Your task to perform on an android device: add a contact Image 0: 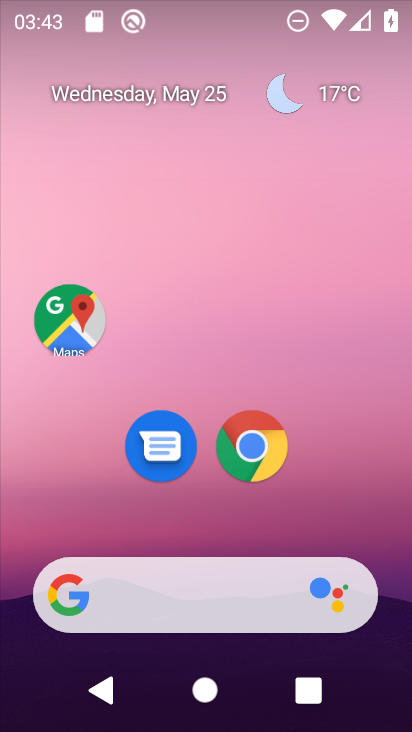
Step 0: drag from (219, 539) to (193, 139)
Your task to perform on an android device: add a contact Image 1: 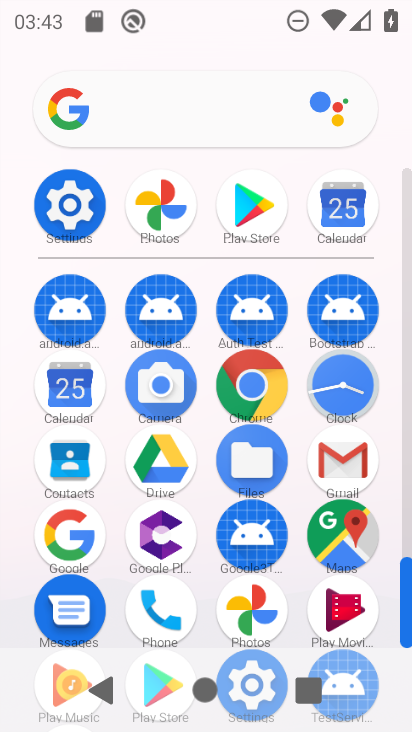
Step 1: click (75, 460)
Your task to perform on an android device: add a contact Image 2: 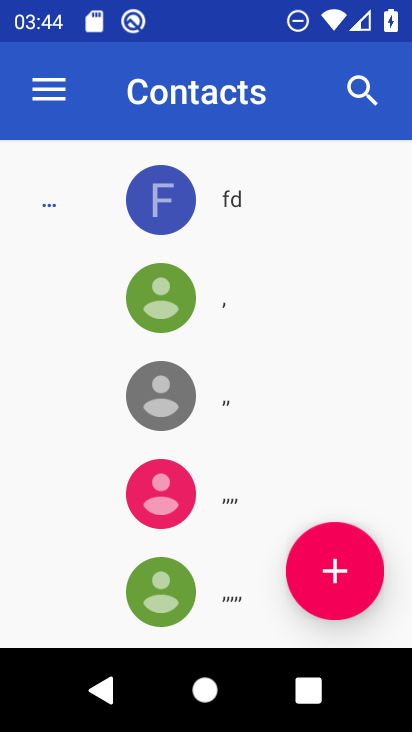
Step 2: click (342, 560)
Your task to perform on an android device: add a contact Image 3: 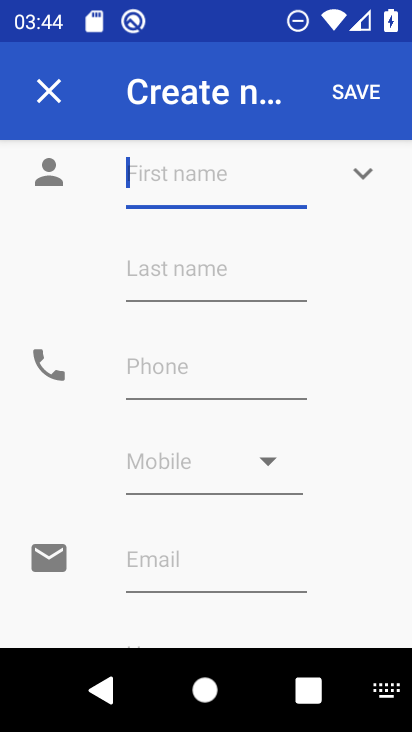
Step 3: type "saida"
Your task to perform on an android device: add a contact Image 4: 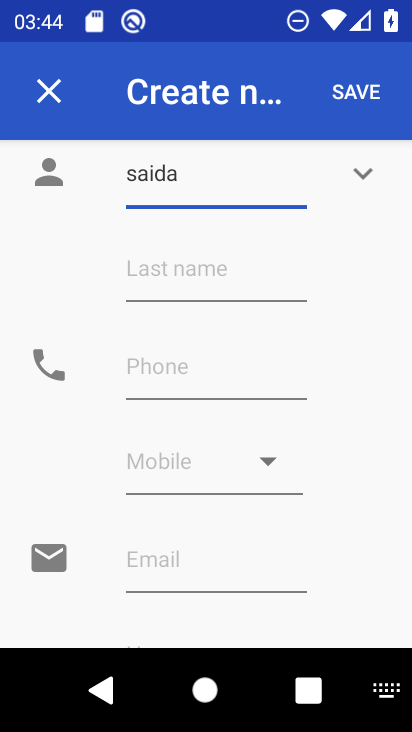
Step 4: click (197, 372)
Your task to perform on an android device: add a contact Image 5: 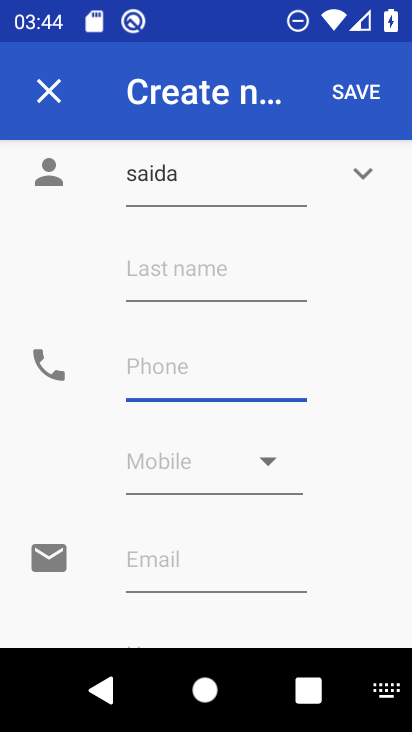
Step 5: type "9880980"
Your task to perform on an android device: add a contact Image 6: 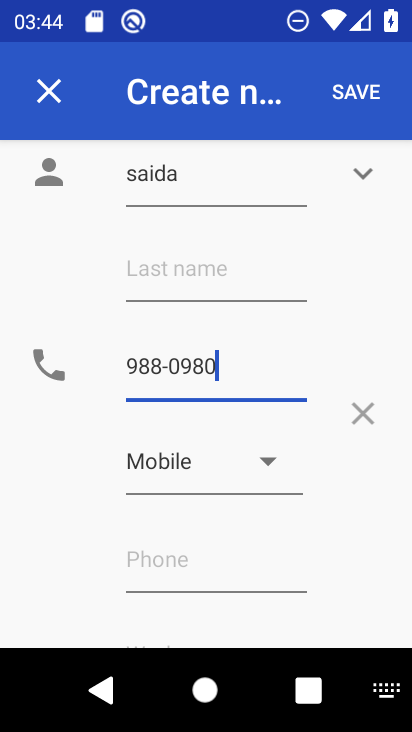
Step 6: click (361, 86)
Your task to perform on an android device: add a contact Image 7: 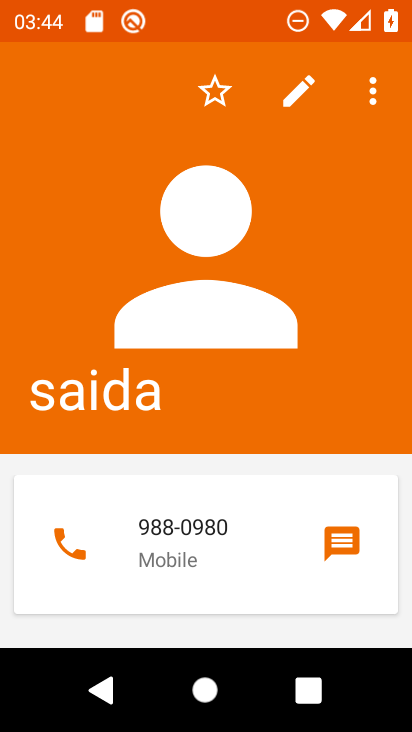
Step 7: task complete